Your task to perform on an android device: turn on data saver in the chrome app Image 0: 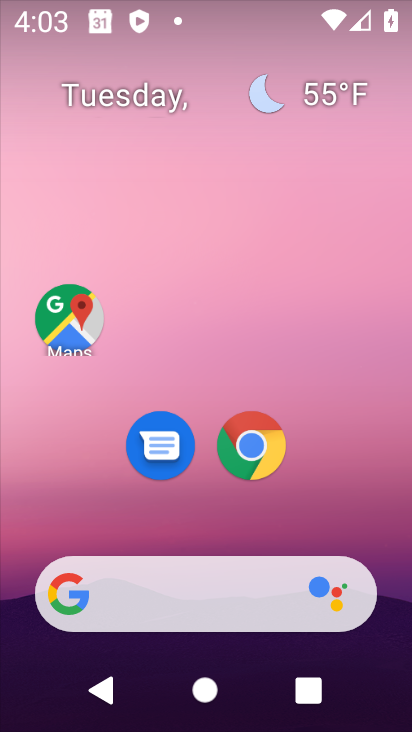
Step 0: click (242, 465)
Your task to perform on an android device: turn on data saver in the chrome app Image 1: 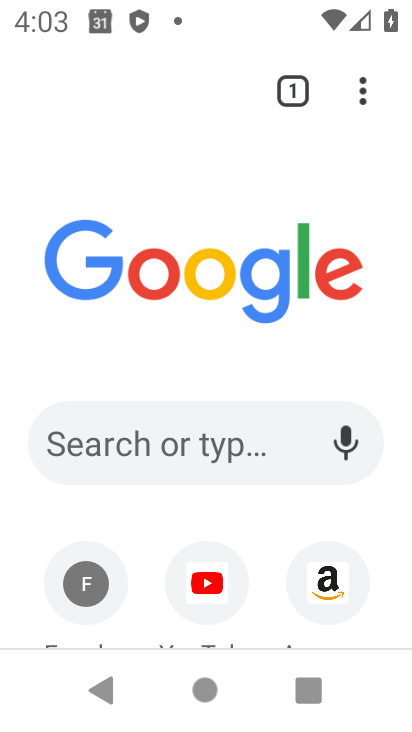
Step 1: click (370, 97)
Your task to perform on an android device: turn on data saver in the chrome app Image 2: 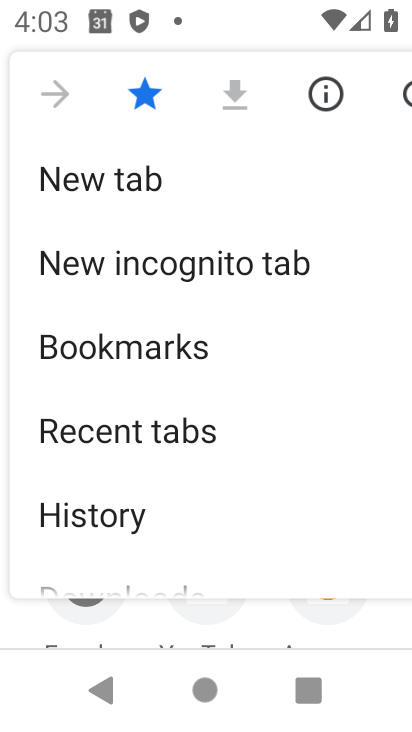
Step 2: drag from (255, 551) to (261, 159)
Your task to perform on an android device: turn on data saver in the chrome app Image 3: 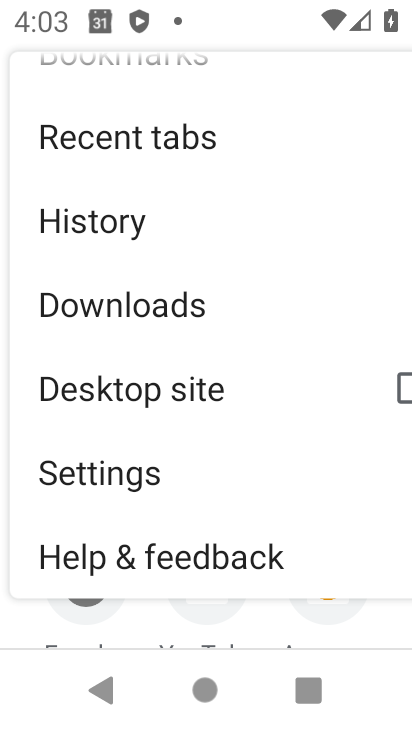
Step 3: click (138, 491)
Your task to perform on an android device: turn on data saver in the chrome app Image 4: 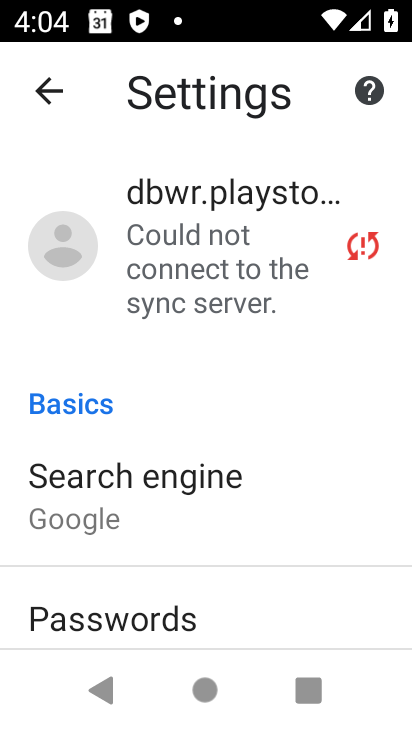
Step 4: drag from (173, 577) to (147, 168)
Your task to perform on an android device: turn on data saver in the chrome app Image 5: 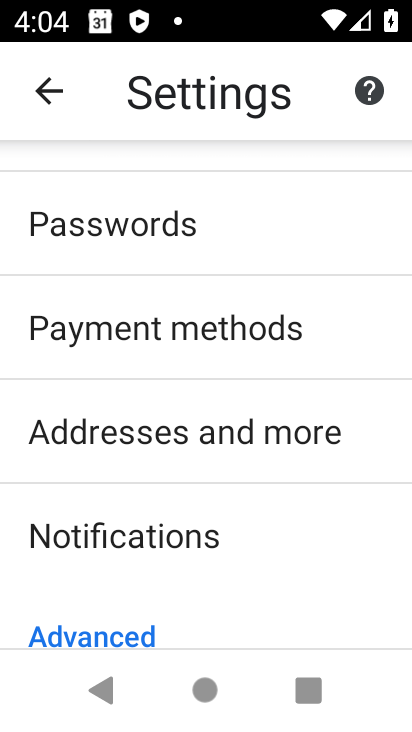
Step 5: drag from (230, 576) to (215, 233)
Your task to perform on an android device: turn on data saver in the chrome app Image 6: 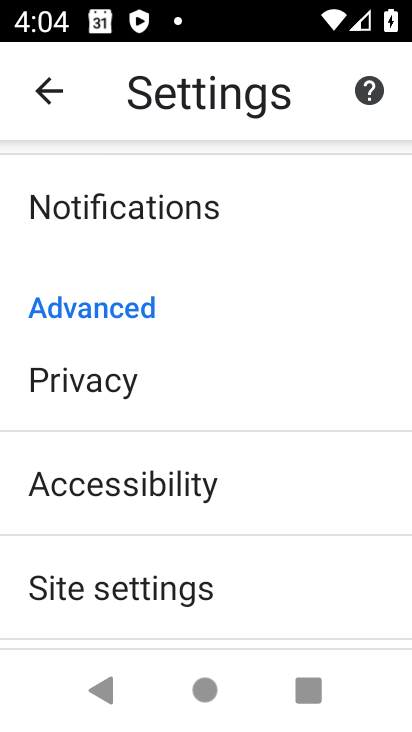
Step 6: drag from (236, 538) to (240, 312)
Your task to perform on an android device: turn on data saver in the chrome app Image 7: 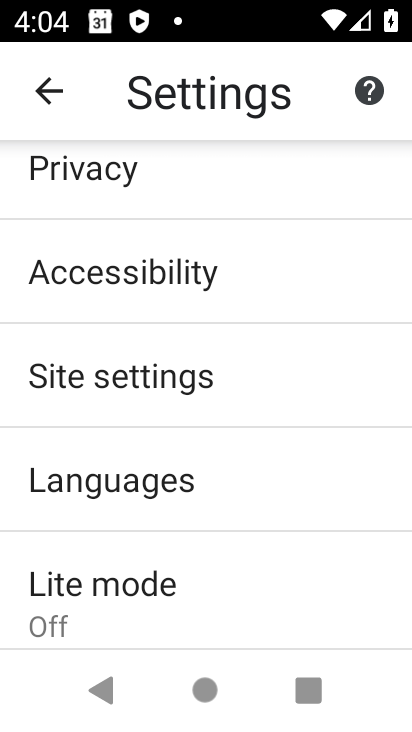
Step 7: click (222, 597)
Your task to perform on an android device: turn on data saver in the chrome app Image 8: 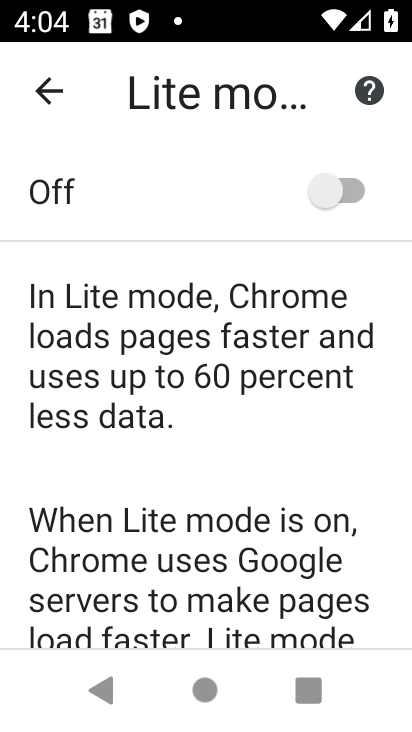
Step 8: click (333, 190)
Your task to perform on an android device: turn on data saver in the chrome app Image 9: 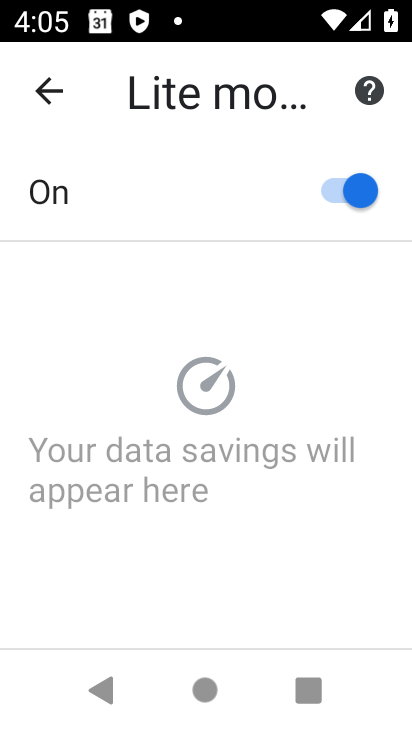
Step 9: task complete